Your task to perform on an android device: Go to Maps Image 0: 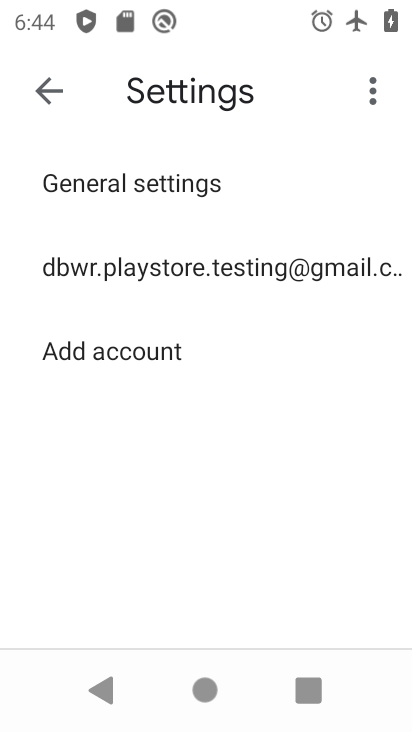
Step 0: press home button
Your task to perform on an android device: Go to Maps Image 1: 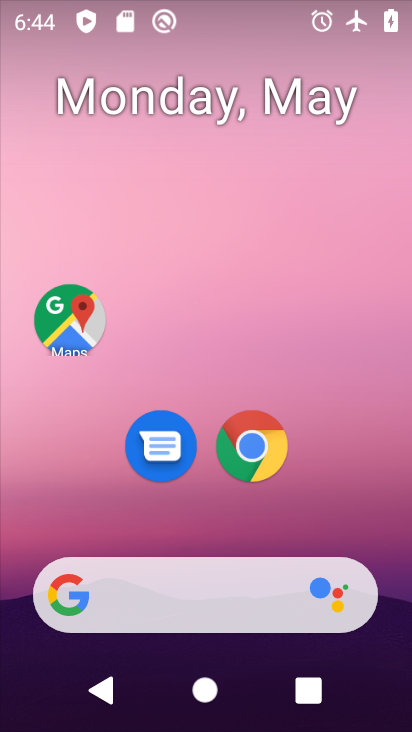
Step 1: click (62, 328)
Your task to perform on an android device: Go to Maps Image 2: 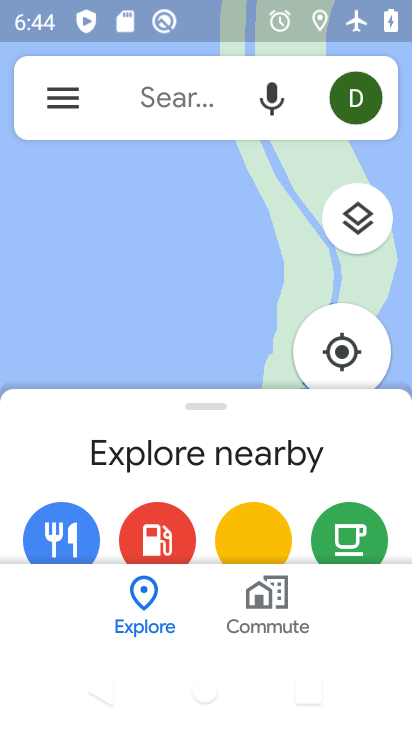
Step 2: task complete